Your task to perform on an android device: What's the weather going to be this weekend? Image 0: 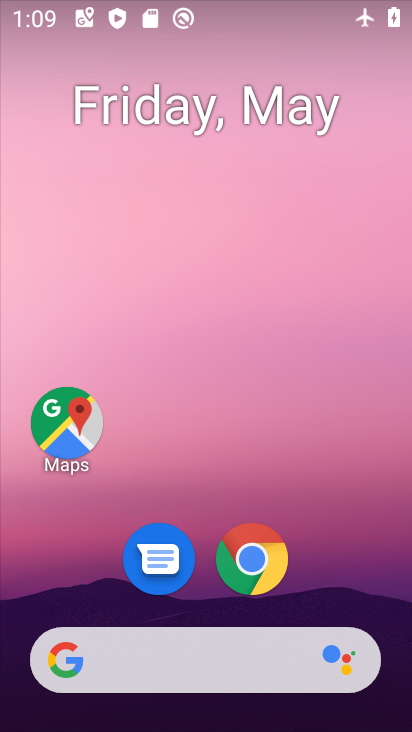
Step 0: drag from (360, 529) to (271, 0)
Your task to perform on an android device: What's the weather going to be this weekend? Image 1: 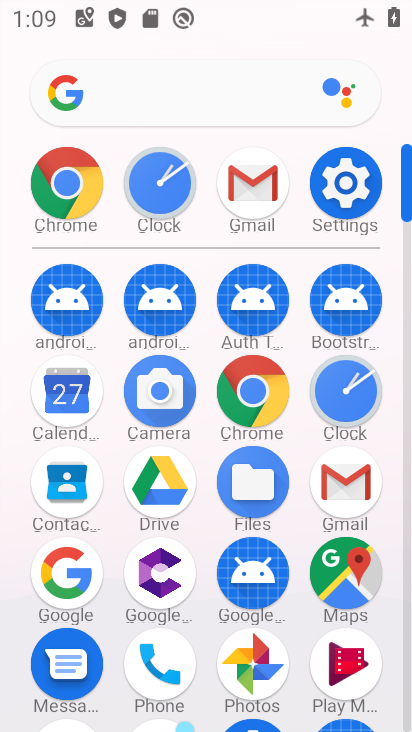
Step 1: click (59, 175)
Your task to perform on an android device: What's the weather going to be this weekend? Image 2: 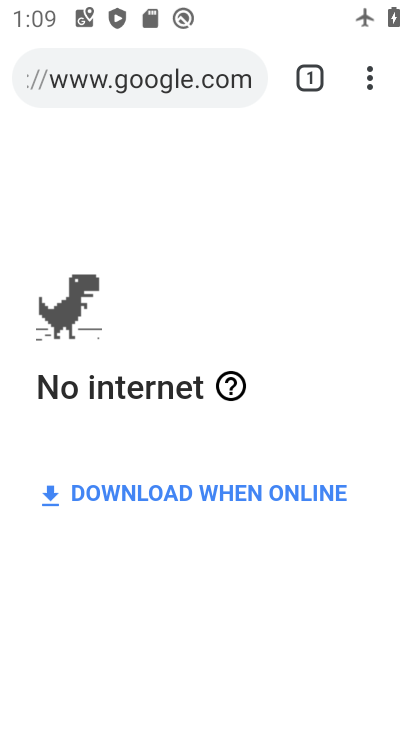
Step 2: click (190, 80)
Your task to perform on an android device: What's the weather going to be this weekend? Image 3: 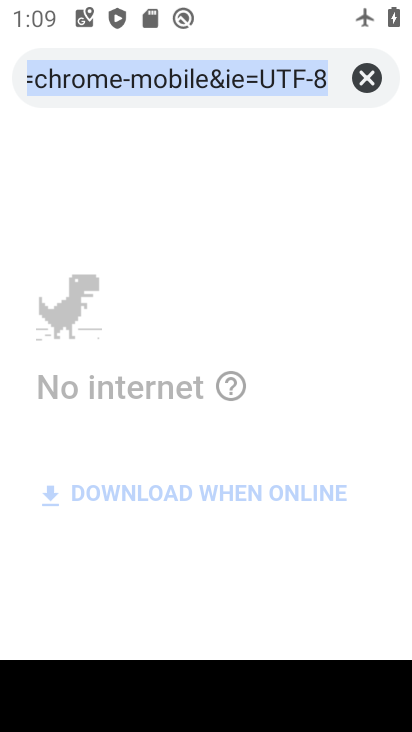
Step 3: type "weather"
Your task to perform on an android device: What's the weather going to be this weekend? Image 4: 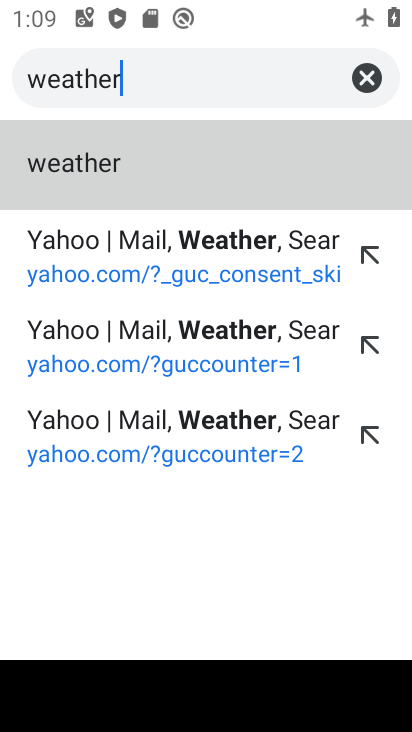
Step 4: click (46, 169)
Your task to perform on an android device: What's the weather going to be this weekend? Image 5: 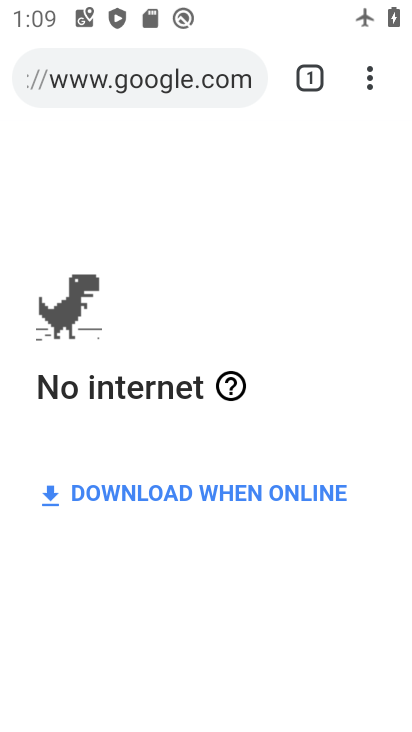
Step 5: task complete